Your task to perform on an android device: Show me productivity apps on the Play Store Image 0: 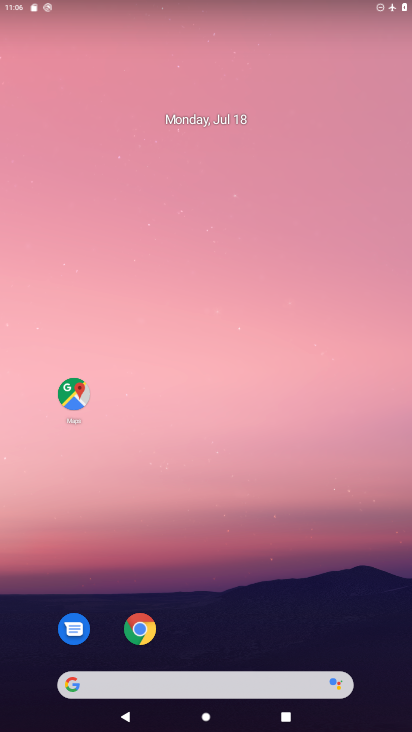
Step 0: drag from (301, 598) to (262, 85)
Your task to perform on an android device: Show me productivity apps on the Play Store Image 1: 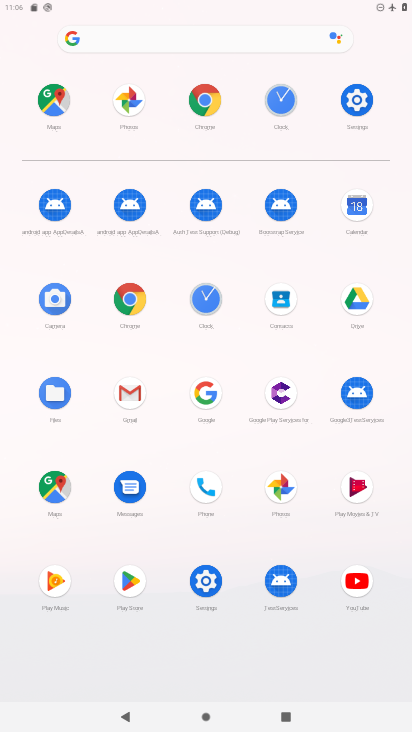
Step 1: click (136, 573)
Your task to perform on an android device: Show me productivity apps on the Play Store Image 2: 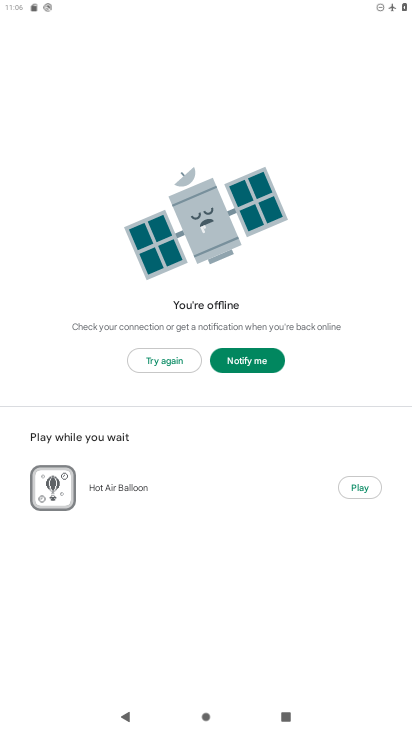
Step 2: task complete